Your task to perform on an android device: Open CNN.com Image 0: 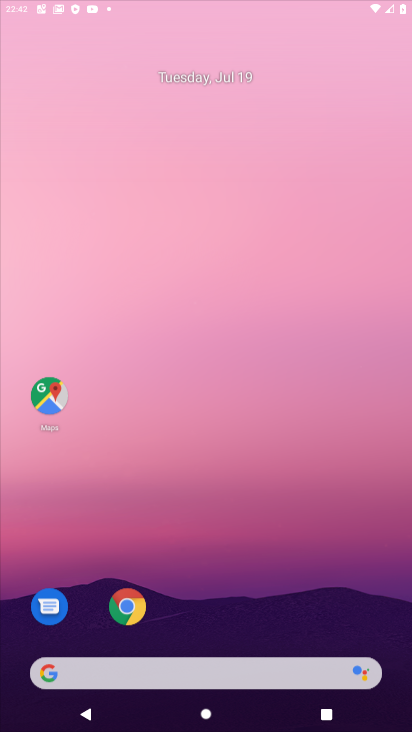
Step 0: click (269, 81)
Your task to perform on an android device: Open CNN.com Image 1: 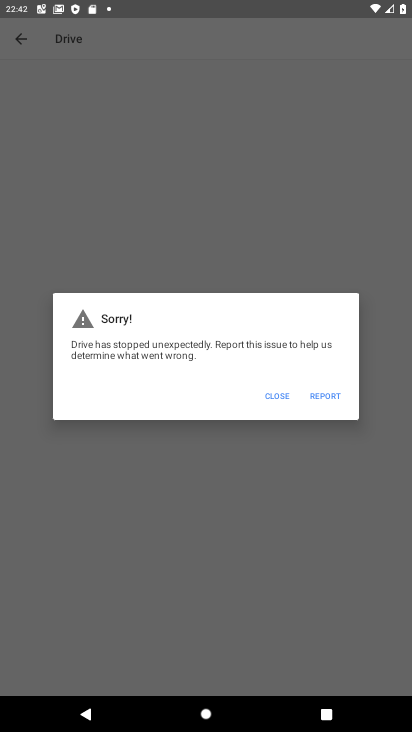
Step 1: press home button
Your task to perform on an android device: Open CNN.com Image 2: 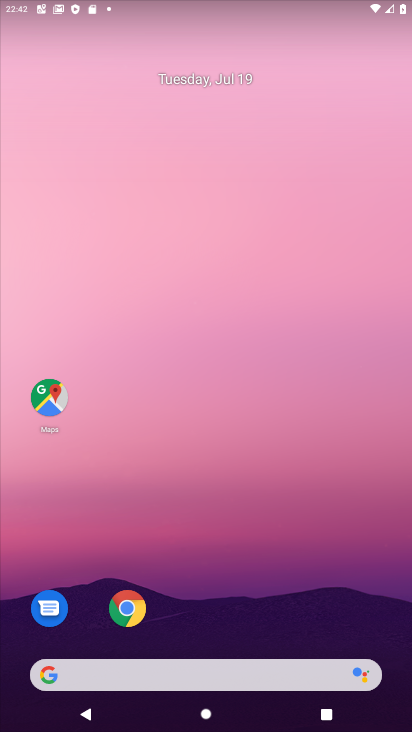
Step 2: drag from (298, 614) to (236, 160)
Your task to perform on an android device: Open CNN.com Image 3: 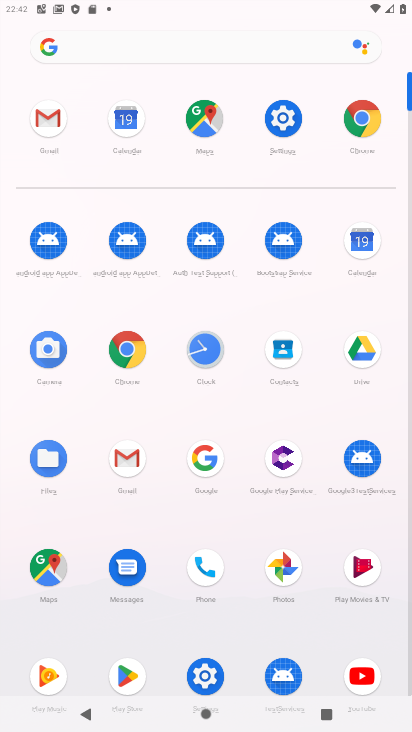
Step 3: click (354, 119)
Your task to perform on an android device: Open CNN.com Image 4: 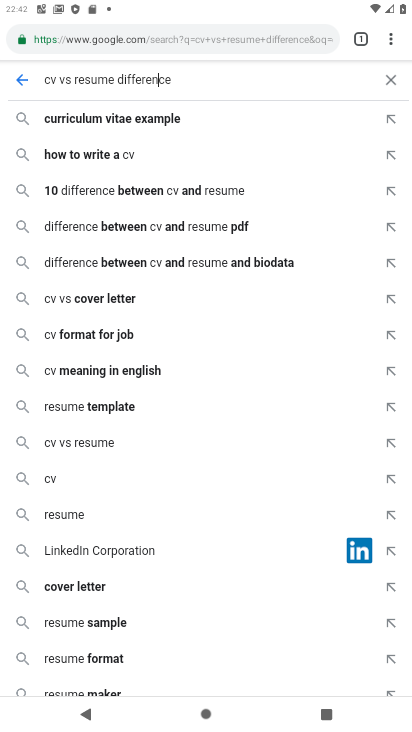
Step 4: click (309, 36)
Your task to perform on an android device: Open CNN.com Image 5: 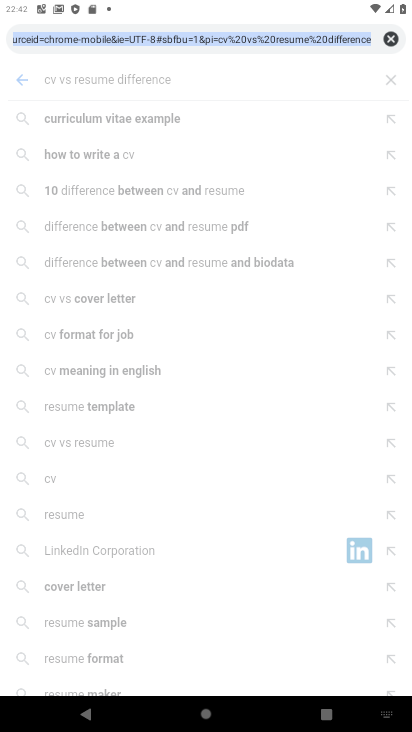
Step 5: click (391, 38)
Your task to perform on an android device: Open CNN.com Image 6: 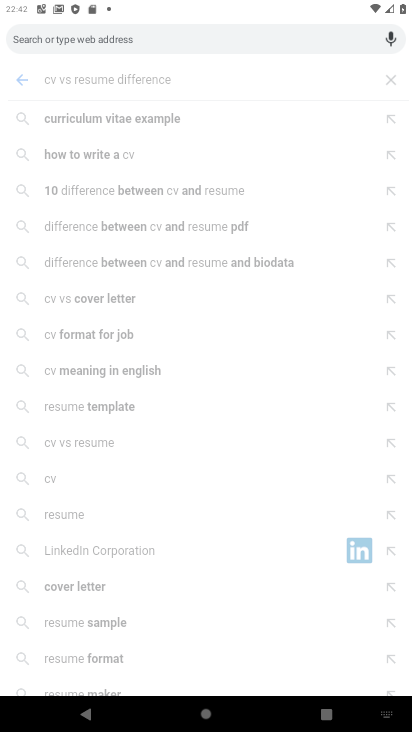
Step 6: type "cnn.com"
Your task to perform on an android device: Open CNN.com Image 7: 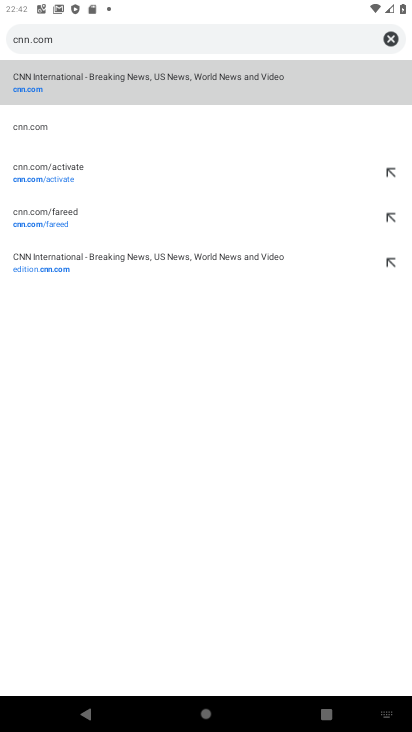
Step 7: click (48, 87)
Your task to perform on an android device: Open CNN.com Image 8: 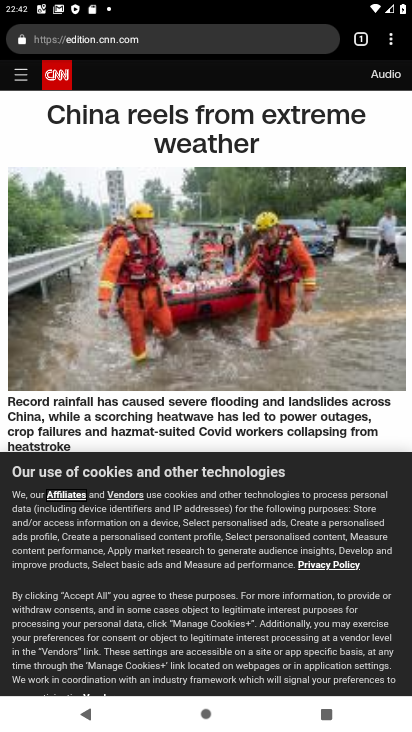
Step 8: task complete